Your task to perform on an android device: set the stopwatch Image 0: 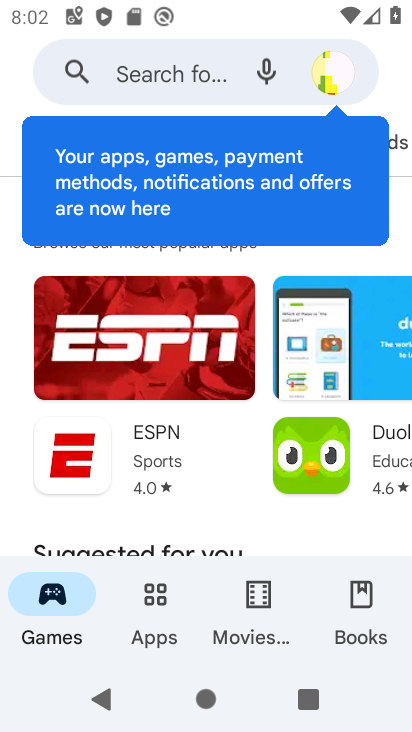
Step 0: press home button
Your task to perform on an android device: set the stopwatch Image 1: 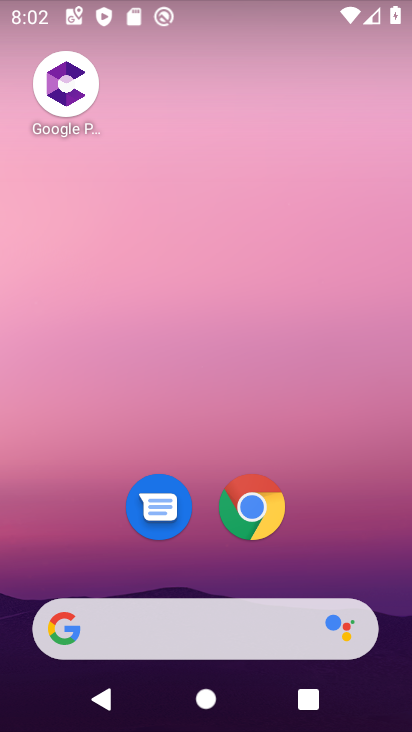
Step 1: drag from (18, 632) to (304, 158)
Your task to perform on an android device: set the stopwatch Image 2: 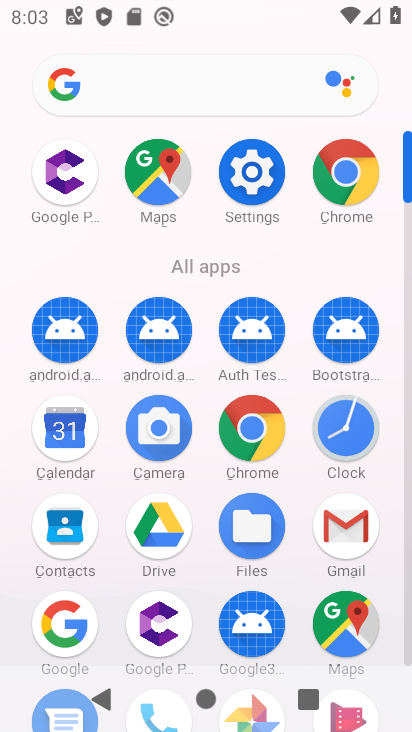
Step 2: click (332, 441)
Your task to perform on an android device: set the stopwatch Image 3: 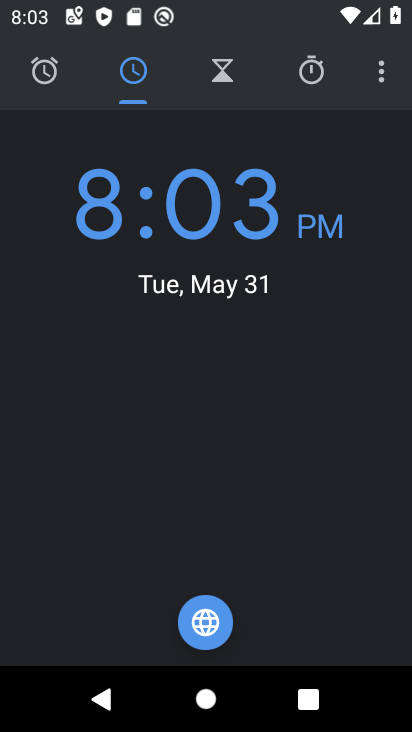
Step 3: click (314, 75)
Your task to perform on an android device: set the stopwatch Image 4: 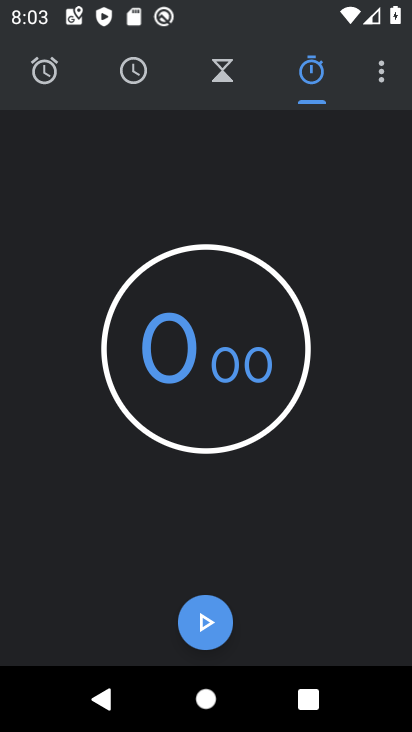
Step 4: click (214, 628)
Your task to perform on an android device: set the stopwatch Image 5: 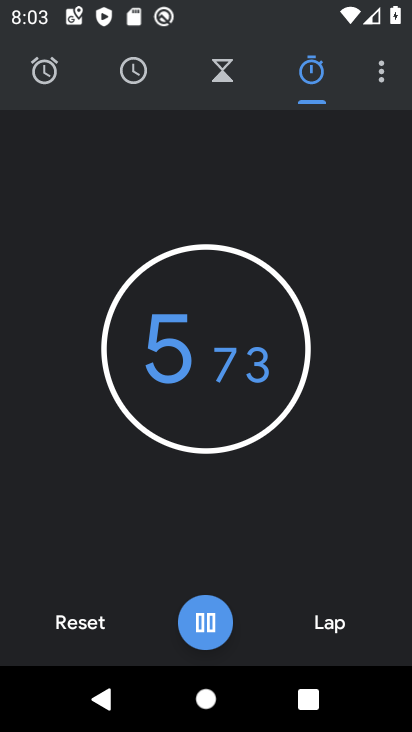
Step 5: task complete